Your task to perform on an android device: move an email to a new category in the gmail app Image 0: 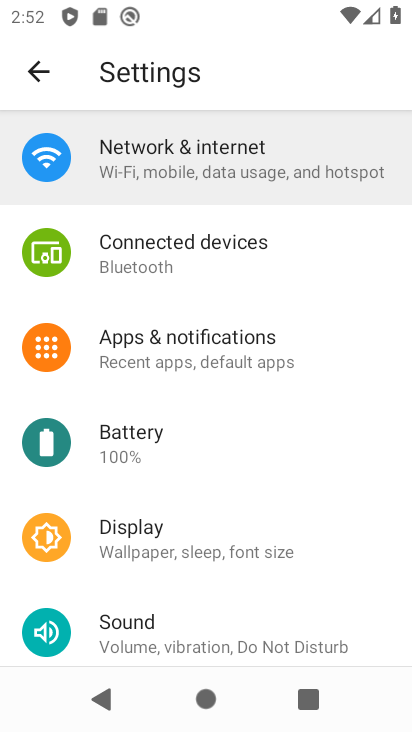
Step 0: press home button
Your task to perform on an android device: move an email to a new category in the gmail app Image 1: 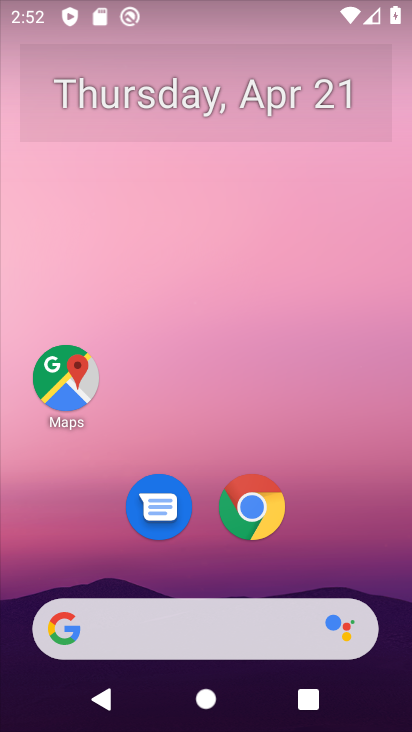
Step 1: drag from (317, 540) to (299, 203)
Your task to perform on an android device: move an email to a new category in the gmail app Image 2: 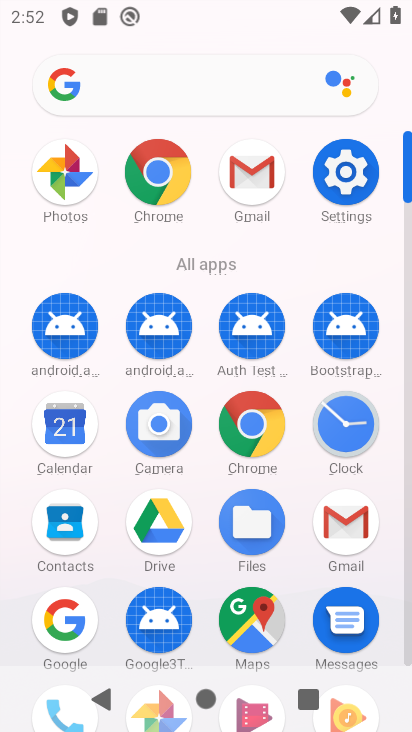
Step 2: click (255, 170)
Your task to perform on an android device: move an email to a new category in the gmail app Image 3: 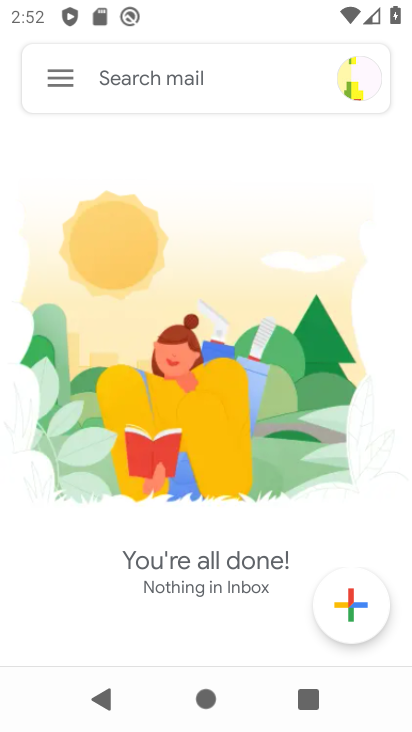
Step 3: task complete